Your task to perform on an android device: Find coffee shops on Maps Image 0: 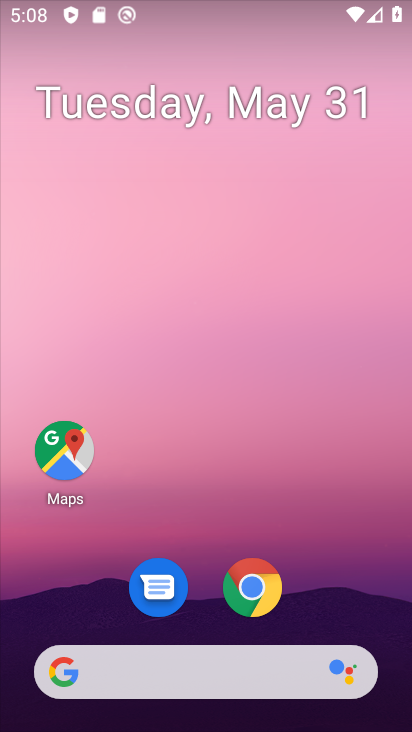
Step 0: click (67, 453)
Your task to perform on an android device: Find coffee shops on Maps Image 1: 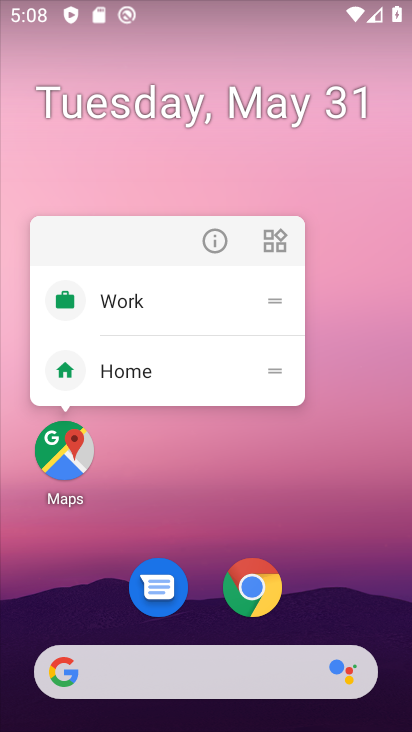
Step 1: click (178, 382)
Your task to perform on an android device: Find coffee shops on Maps Image 2: 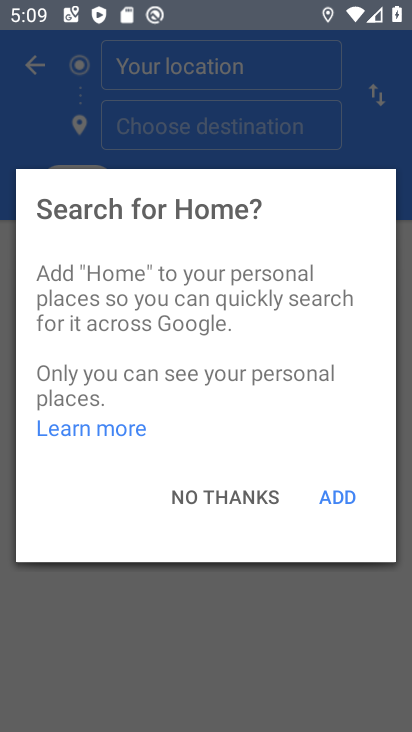
Step 2: click (210, 489)
Your task to perform on an android device: Find coffee shops on Maps Image 3: 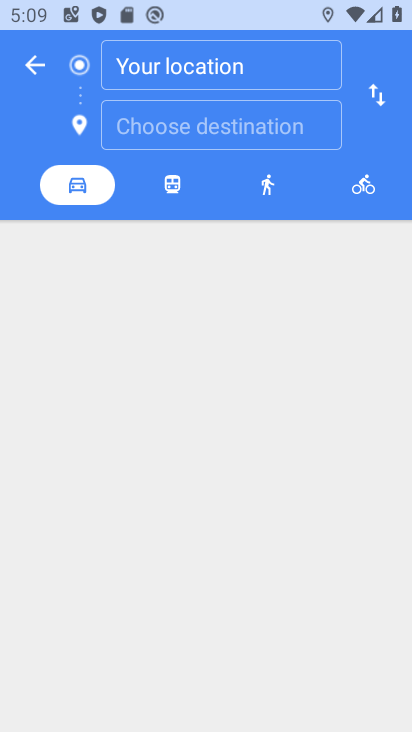
Step 3: click (35, 55)
Your task to perform on an android device: Find coffee shops on Maps Image 4: 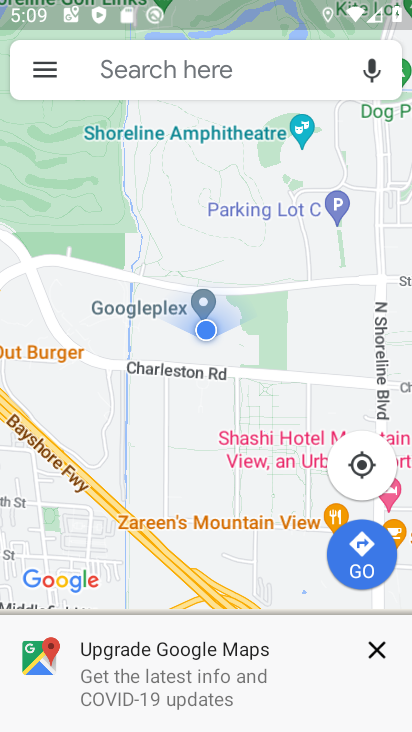
Step 4: click (150, 79)
Your task to perform on an android device: Find coffee shops on Maps Image 5: 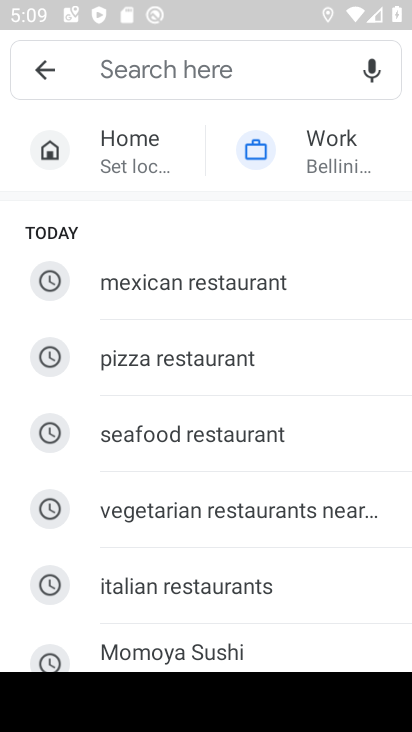
Step 5: type "coffee"
Your task to perform on an android device: Find coffee shops on Maps Image 6: 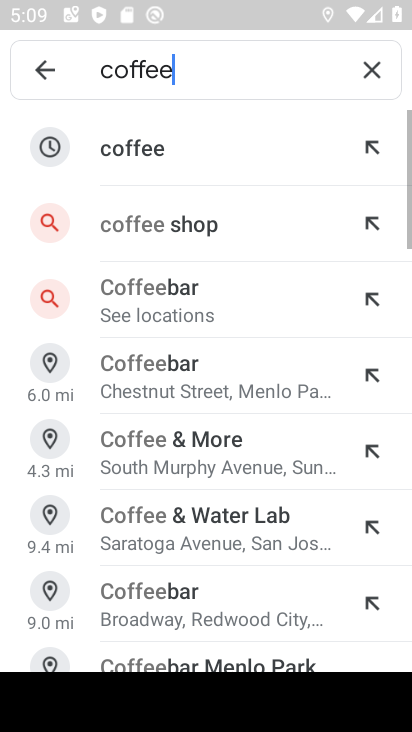
Step 6: click (150, 306)
Your task to perform on an android device: Find coffee shops on Maps Image 7: 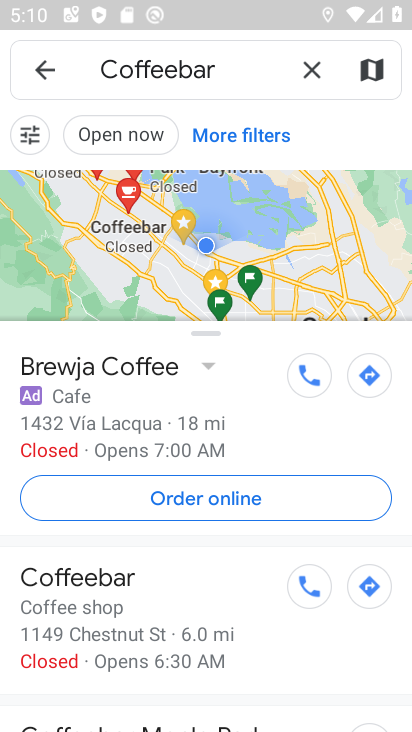
Step 7: task complete